Your task to perform on an android device: Open the calendar and show me this week's events? Image 0: 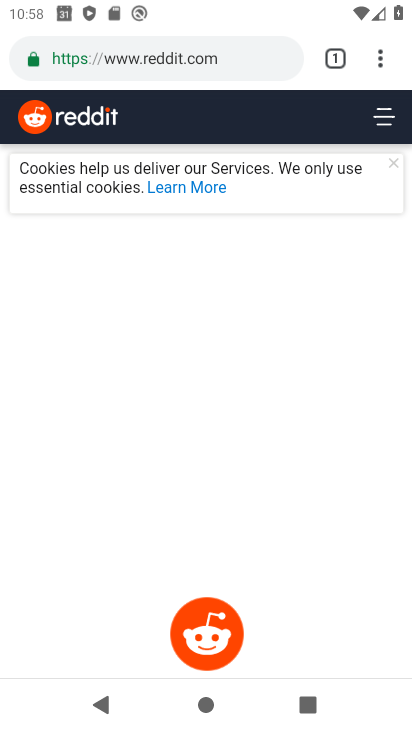
Step 0: press home button
Your task to perform on an android device: Open the calendar and show me this week's events? Image 1: 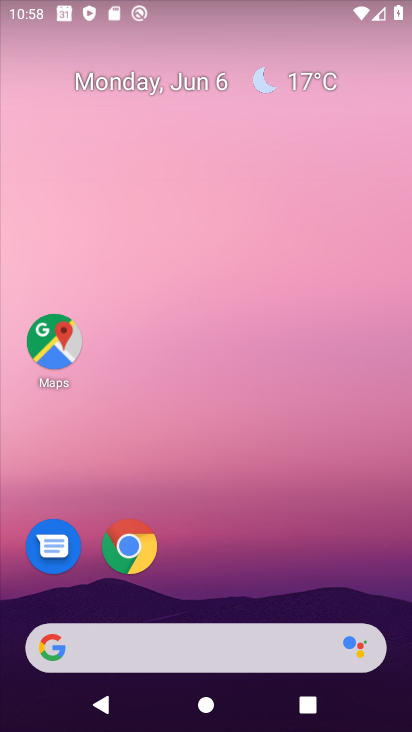
Step 1: drag from (317, 541) to (268, 99)
Your task to perform on an android device: Open the calendar and show me this week's events? Image 2: 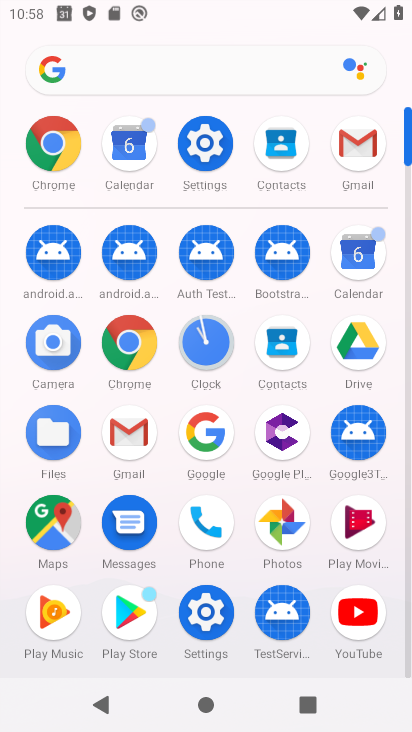
Step 2: click (360, 255)
Your task to perform on an android device: Open the calendar and show me this week's events? Image 3: 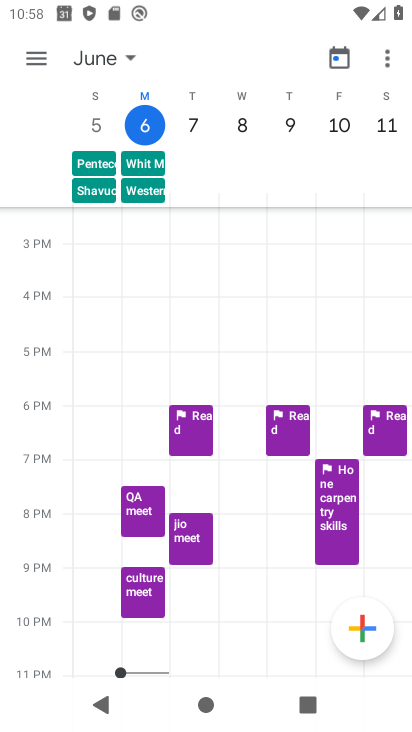
Step 3: task complete